Your task to perform on an android device: turn on the 24-hour format for clock Image 0: 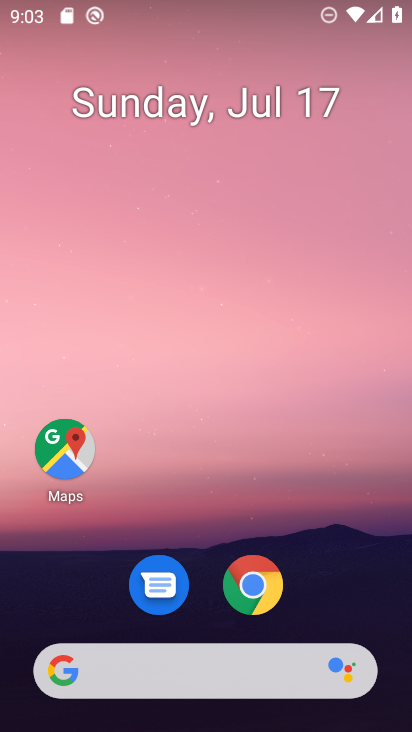
Step 0: drag from (204, 651) to (346, 40)
Your task to perform on an android device: turn on the 24-hour format for clock Image 1: 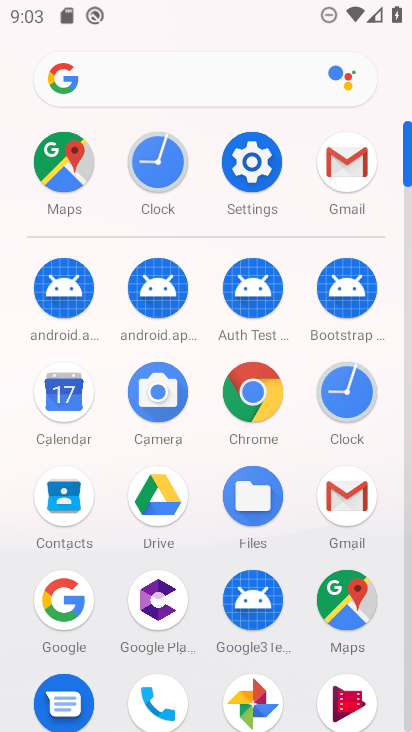
Step 1: click (353, 395)
Your task to perform on an android device: turn on the 24-hour format for clock Image 2: 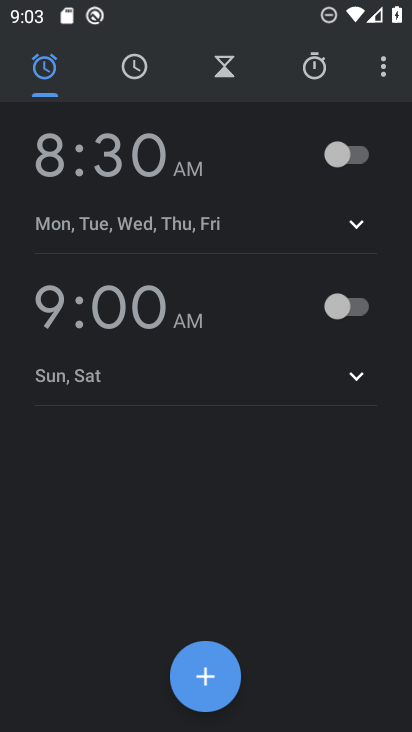
Step 2: click (376, 73)
Your task to perform on an android device: turn on the 24-hour format for clock Image 3: 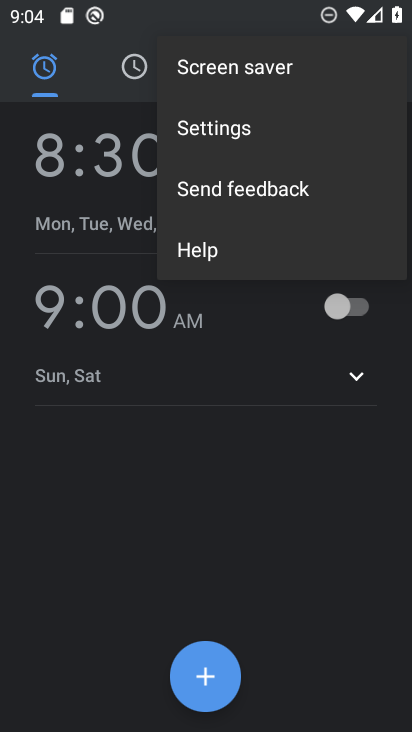
Step 3: click (239, 131)
Your task to perform on an android device: turn on the 24-hour format for clock Image 4: 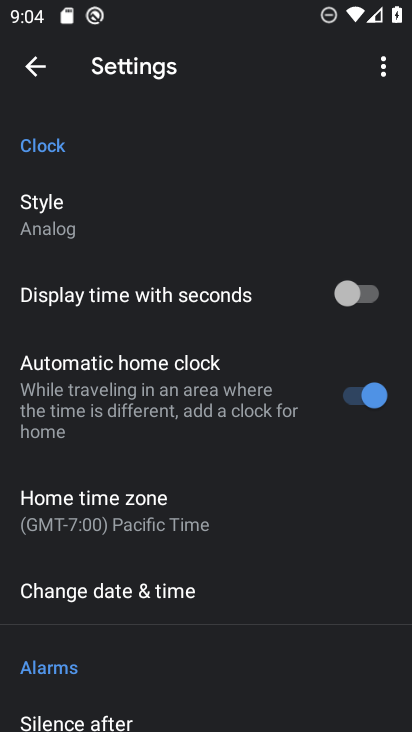
Step 4: click (178, 602)
Your task to perform on an android device: turn on the 24-hour format for clock Image 5: 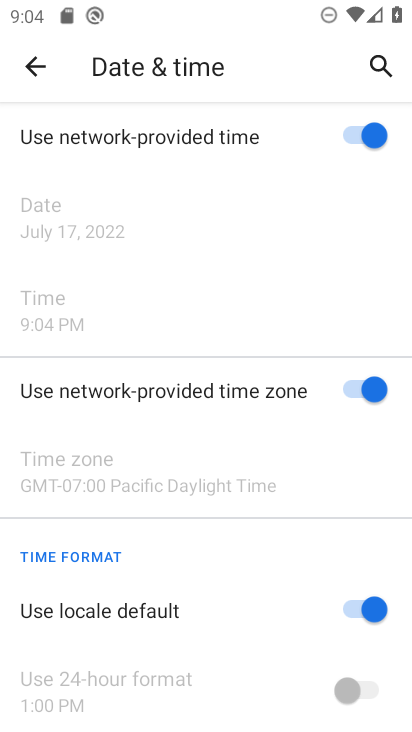
Step 5: drag from (241, 607) to (367, 177)
Your task to perform on an android device: turn on the 24-hour format for clock Image 6: 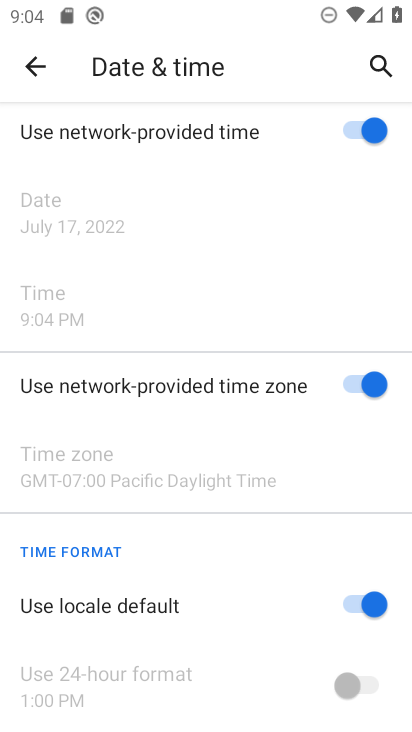
Step 6: click (352, 604)
Your task to perform on an android device: turn on the 24-hour format for clock Image 7: 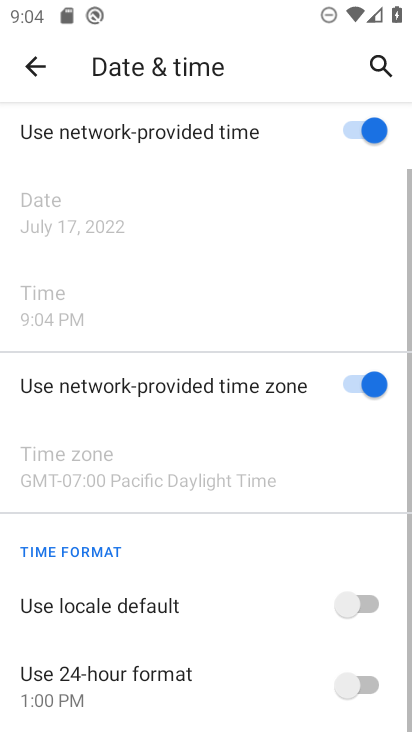
Step 7: click (364, 694)
Your task to perform on an android device: turn on the 24-hour format for clock Image 8: 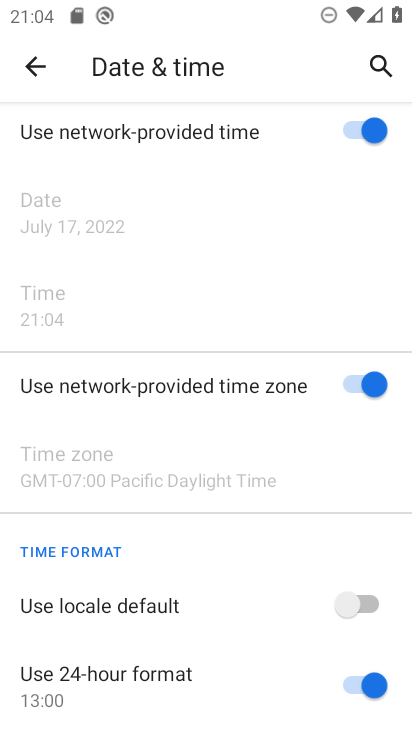
Step 8: task complete